Your task to perform on an android device: Go to Wikipedia Image 0: 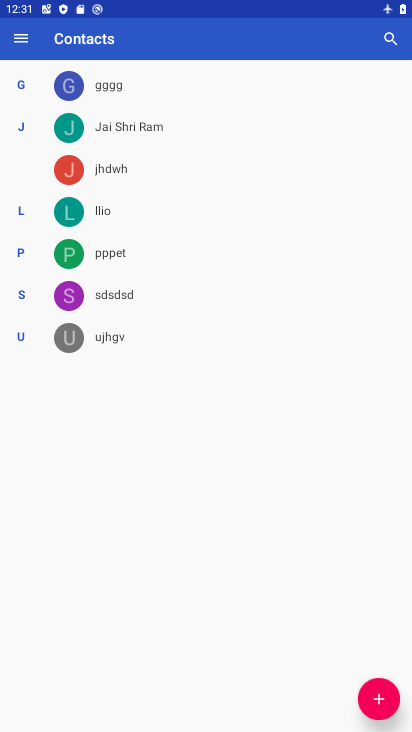
Step 0: press home button
Your task to perform on an android device: Go to Wikipedia Image 1: 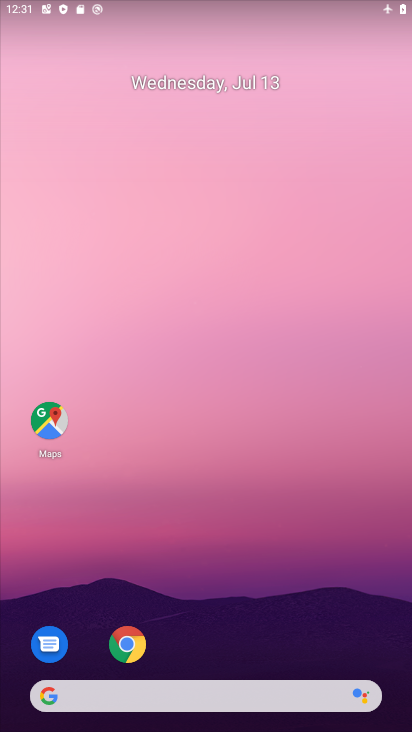
Step 1: drag from (295, 645) to (284, 121)
Your task to perform on an android device: Go to Wikipedia Image 2: 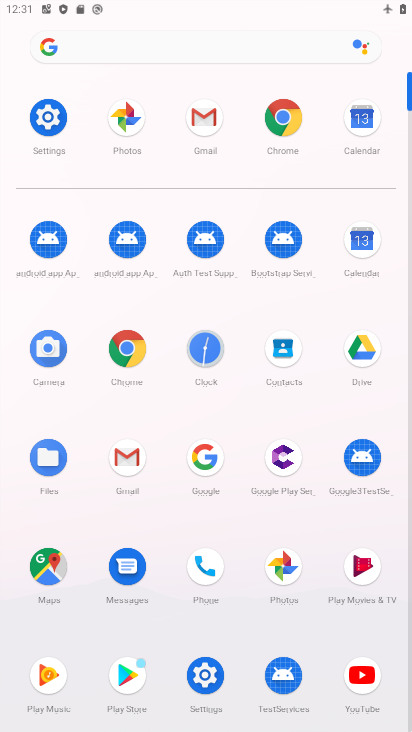
Step 2: click (128, 351)
Your task to perform on an android device: Go to Wikipedia Image 3: 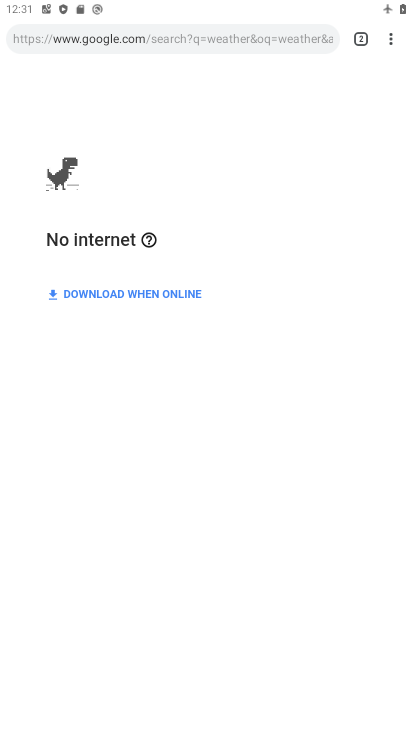
Step 3: click (200, 37)
Your task to perform on an android device: Go to Wikipedia Image 4: 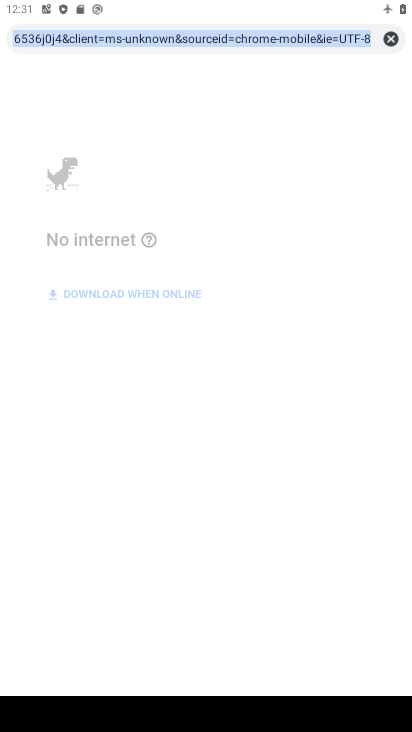
Step 4: type "wikipedia"
Your task to perform on an android device: Go to Wikipedia Image 5: 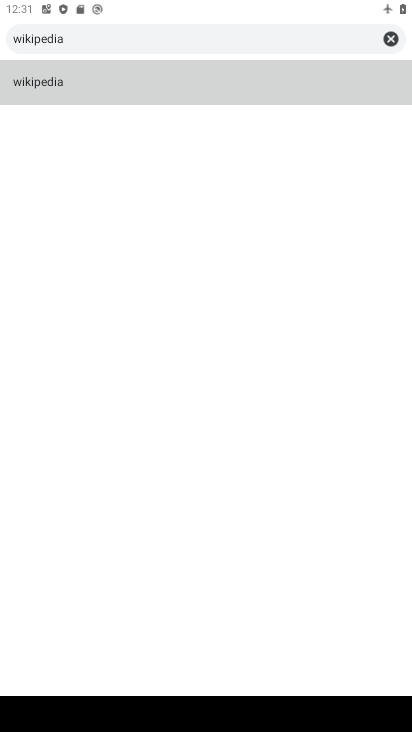
Step 5: click (52, 83)
Your task to perform on an android device: Go to Wikipedia Image 6: 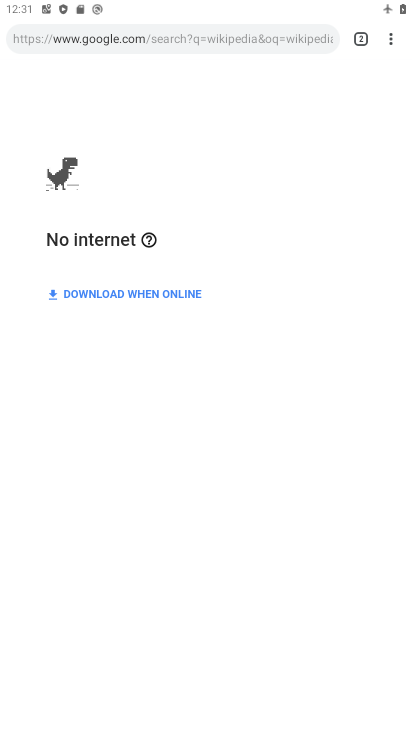
Step 6: task complete